Your task to perform on an android device: turn off location history Image 0: 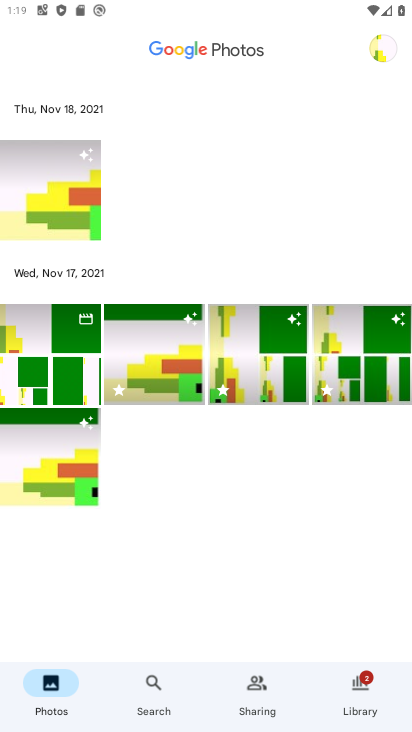
Step 0: press home button
Your task to perform on an android device: turn off location history Image 1: 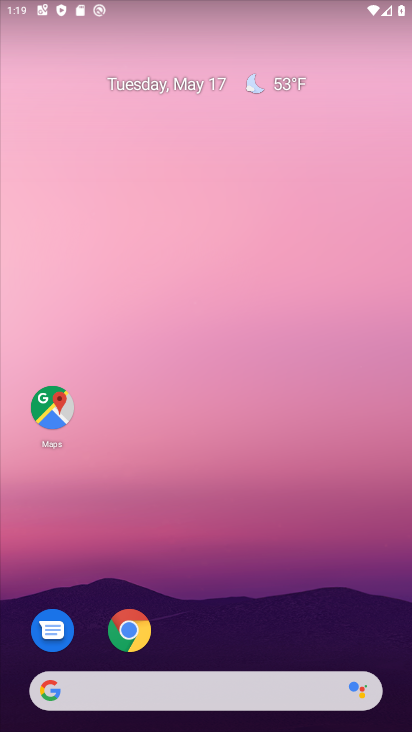
Step 1: drag from (191, 685) to (318, 182)
Your task to perform on an android device: turn off location history Image 2: 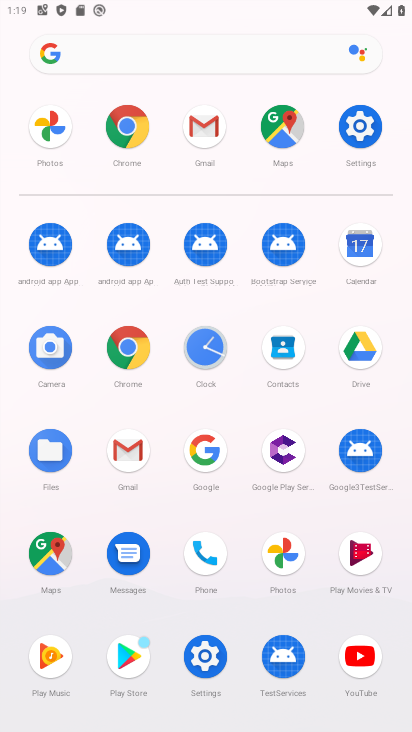
Step 2: click (353, 142)
Your task to perform on an android device: turn off location history Image 3: 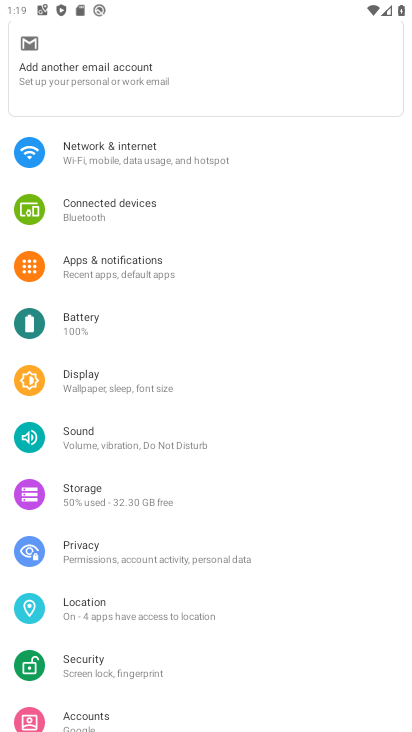
Step 3: click (129, 615)
Your task to perform on an android device: turn off location history Image 4: 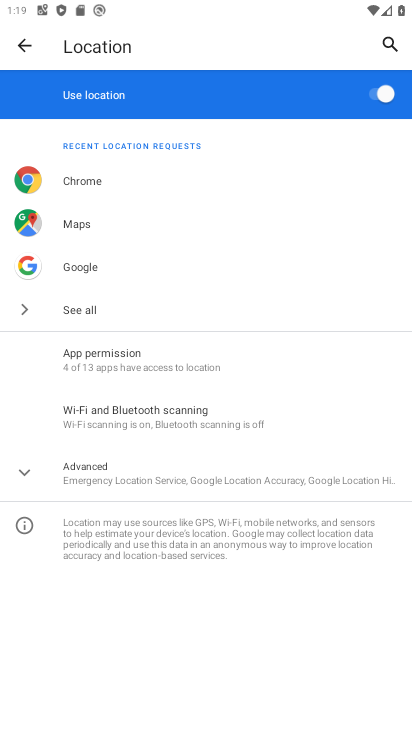
Step 4: click (143, 481)
Your task to perform on an android device: turn off location history Image 5: 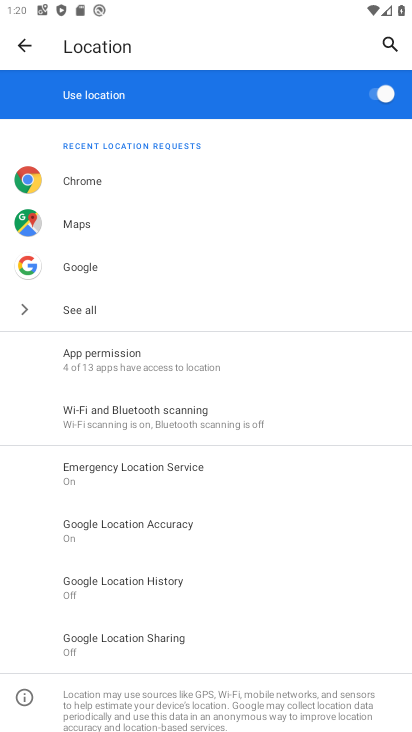
Step 5: click (177, 588)
Your task to perform on an android device: turn off location history Image 6: 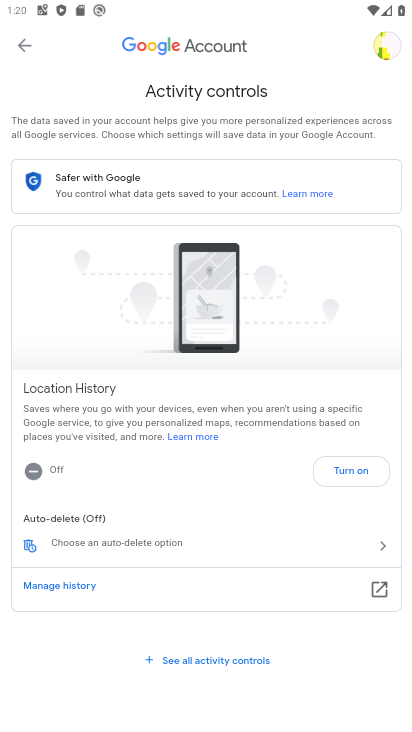
Step 6: task complete